Your task to perform on an android device: Go to Android settings Image 0: 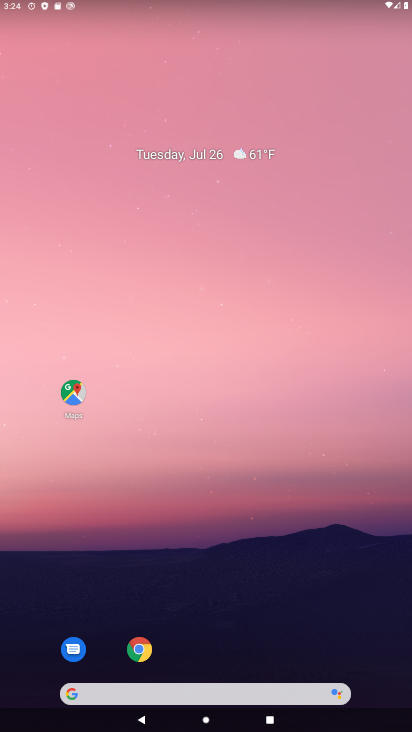
Step 0: drag from (57, 650) to (148, 15)
Your task to perform on an android device: Go to Android settings Image 1: 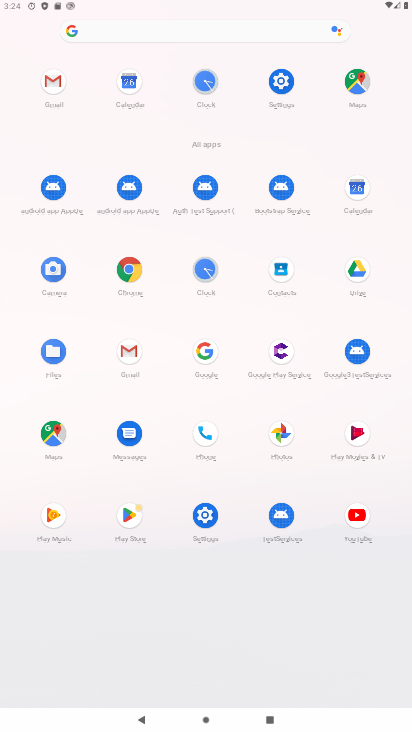
Step 1: click (212, 523)
Your task to perform on an android device: Go to Android settings Image 2: 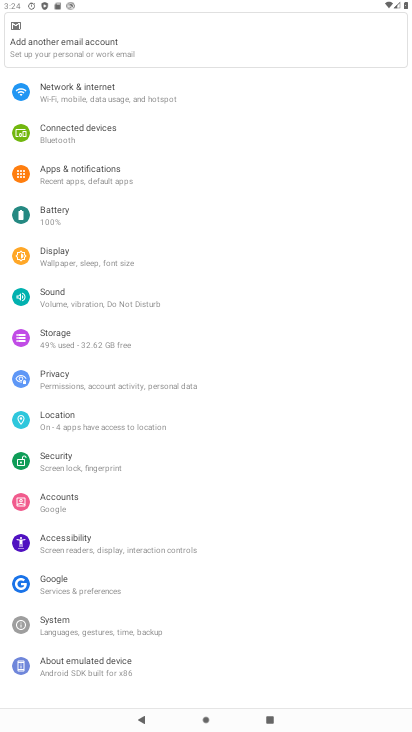
Step 2: click (105, 661)
Your task to perform on an android device: Go to Android settings Image 3: 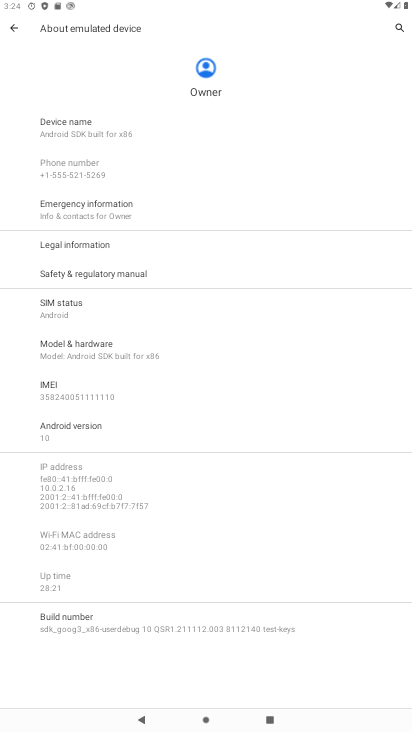
Step 3: click (78, 419)
Your task to perform on an android device: Go to Android settings Image 4: 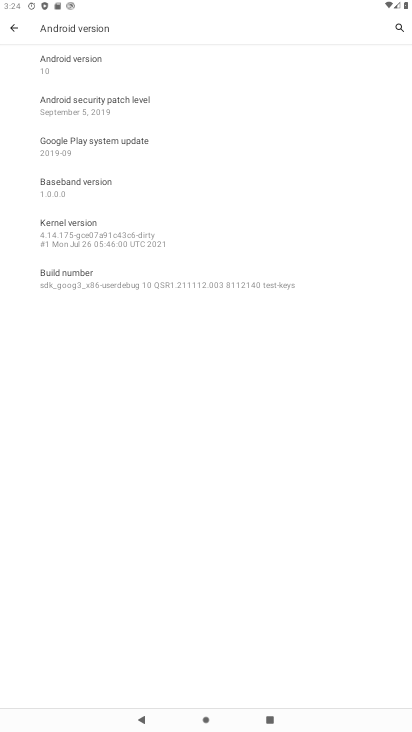
Step 4: task complete